Your task to perform on an android device: stop showing notifications on the lock screen Image 0: 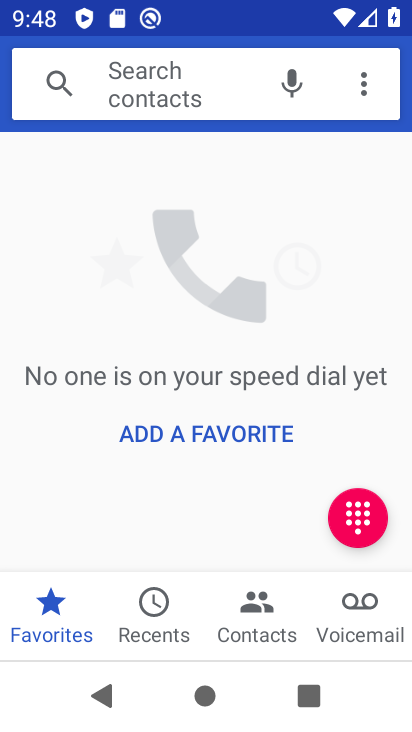
Step 0: press home button
Your task to perform on an android device: stop showing notifications on the lock screen Image 1: 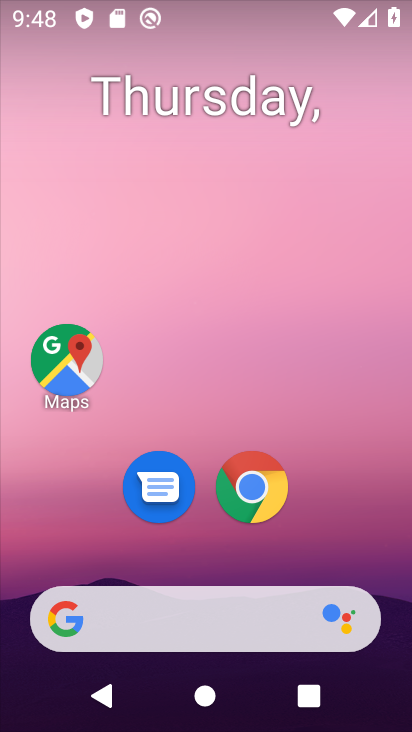
Step 1: drag from (326, 545) to (125, 196)
Your task to perform on an android device: stop showing notifications on the lock screen Image 2: 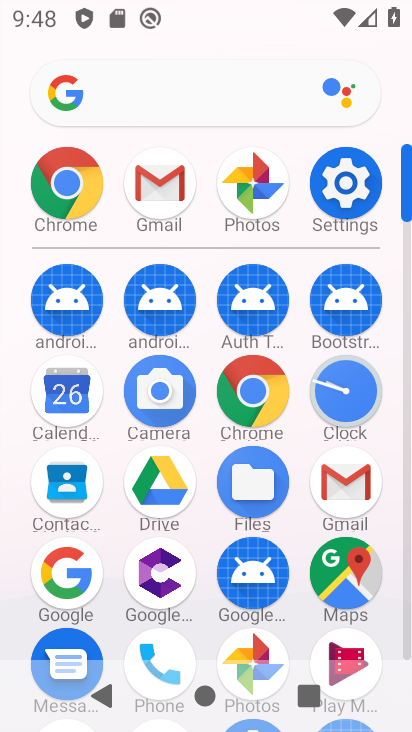
Step 2: click (350, 189)
Your task to perform on an android device: stop showing notifications on the lock screen Image 3: 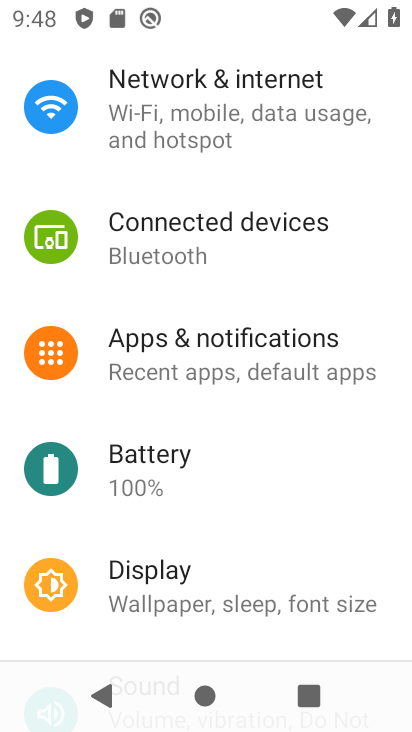
Step 3: click (223, 350)
Your task to perform on an android device: stop showing notifications on the lock screen Image 4: 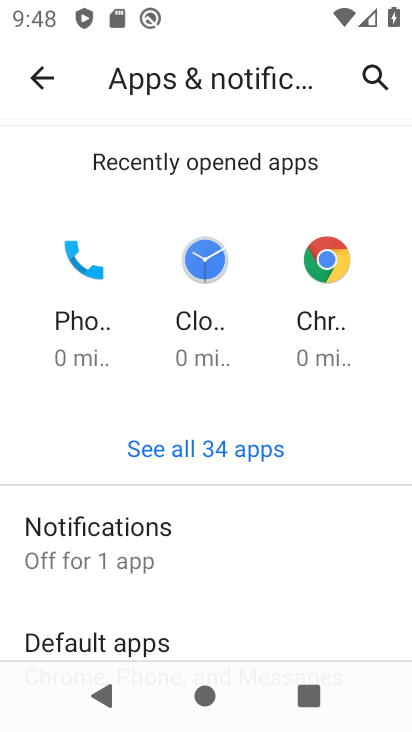
Step 4: click (120, 542)
Your task to perform on an android device: stop showing notifications on the lock screen Image 5: 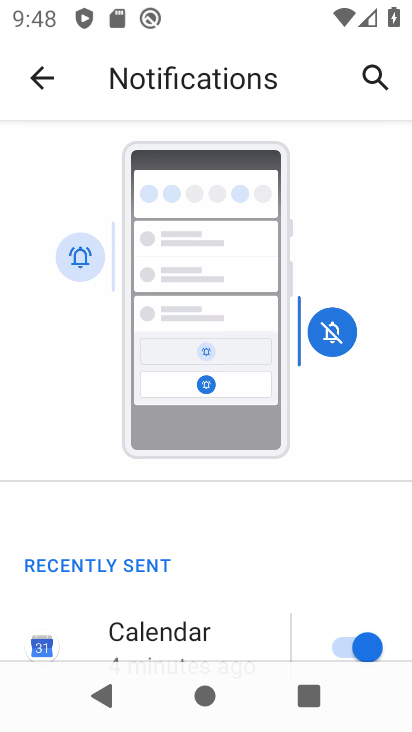
Step 5: drag from (163, 611) to (167, 534)
Your task to perform on an android device: stop showing notifications on the lock screen Image 6: 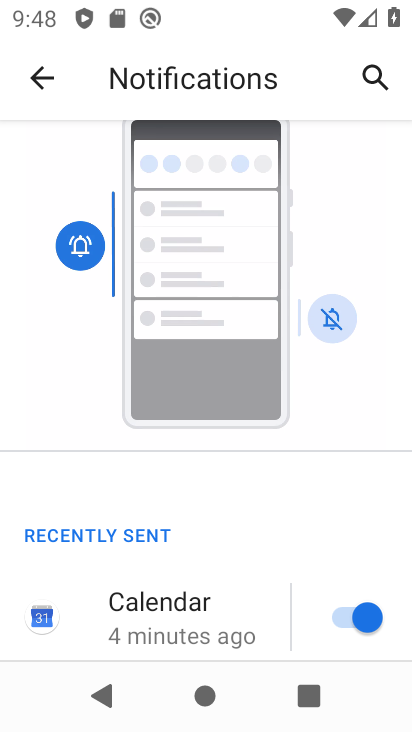
Step 6: drag from (189, 507) to (130, 138)
Your task to perform on an android device: stop showing notifications on the lock screen Image 7: 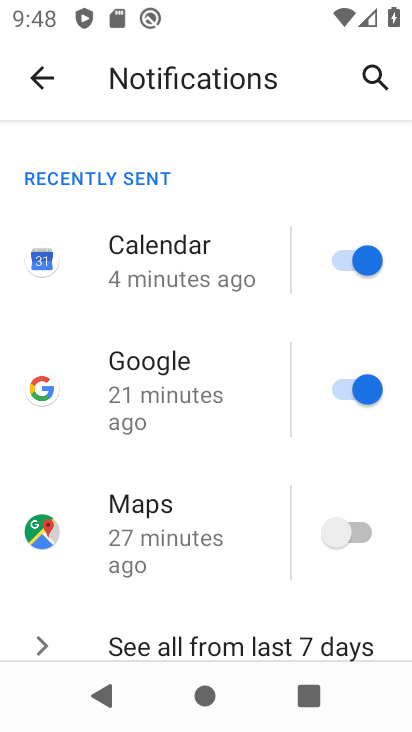
Step 7: drag from (158, 522) to (125, 206)
Your task to perform on an android device: stop showing notifications on the lock screen Image 8: 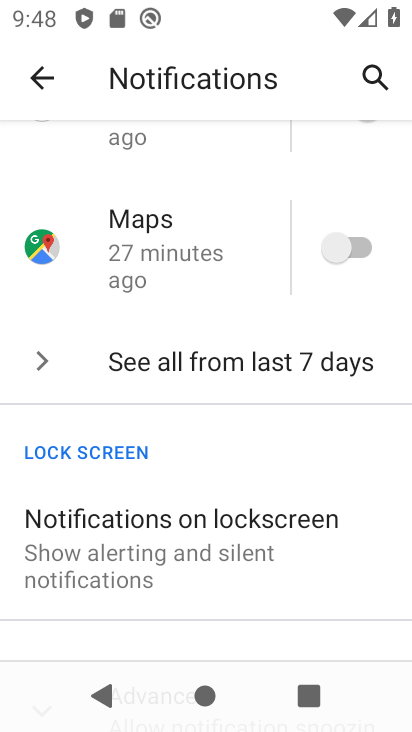
Step 8: click (134, 541)
Your task to perform on an android device: stop showing notifications on the lock screen Image 9: 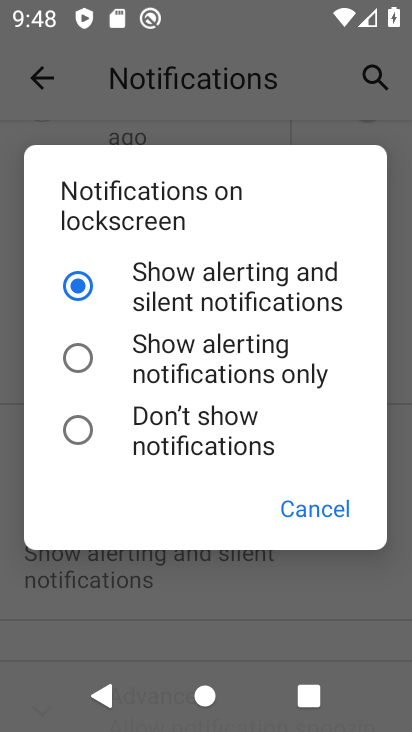
Step 9: click (150, 429)
Your task to perform on an android device: stop showing notifications on the lock screen Image 10: 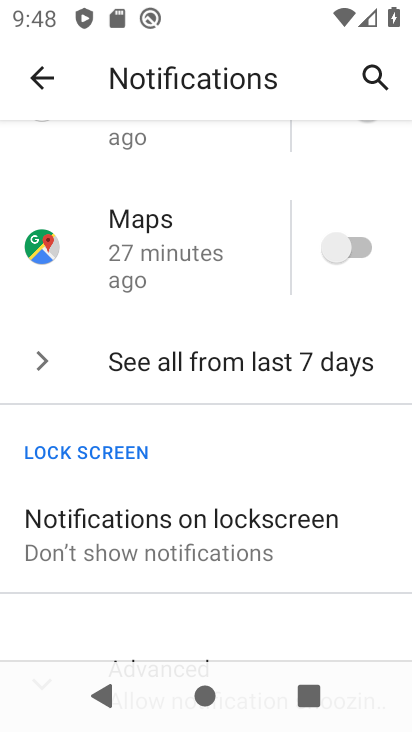
Step 10: task complete